Your task to perform on an android device: Open calendar and show me the third week of next month Image 0: 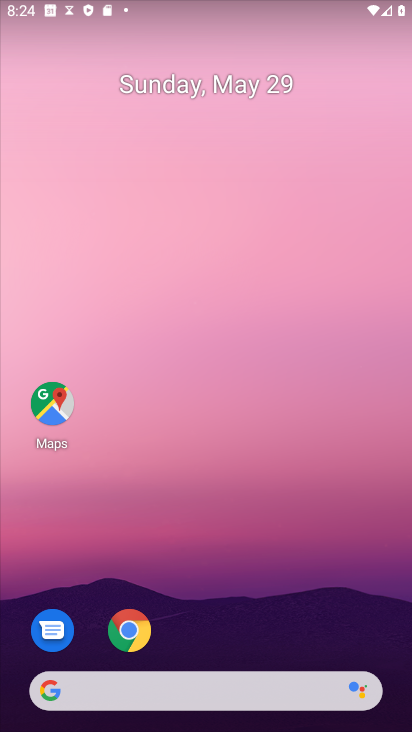
Step 0: click (180, 87)
Your task to perform on an android device: Open calendar and show me the third week of next month Image 1: 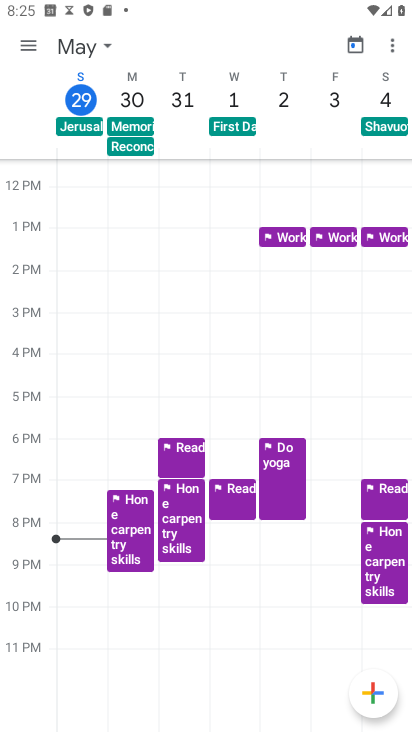
Step 1: click (31, 47)
Your task to perform on an android device: Open calendar and show me the third week of next month Image 2: 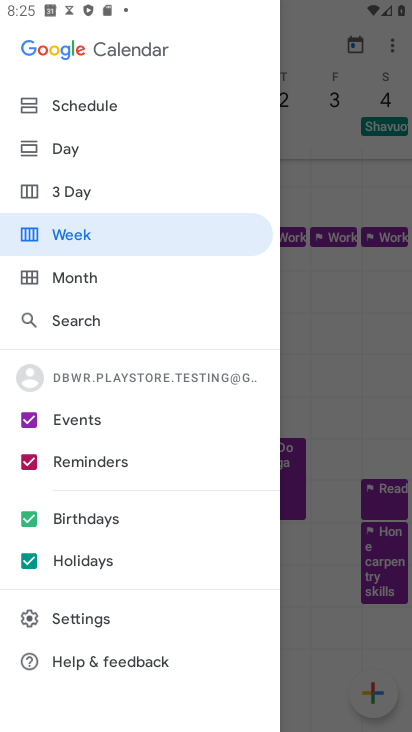
Step 2: click (121, 231)
Your task to perform on an android device: Open calendar and show me the third week of next month Image 3: 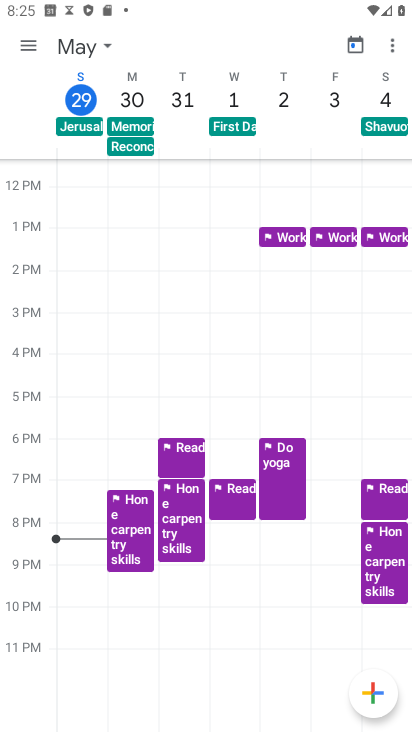
Step 3: click (102, 53)
Your task to perform on an android device: Open calendar and show me the third week of next month Image 4: 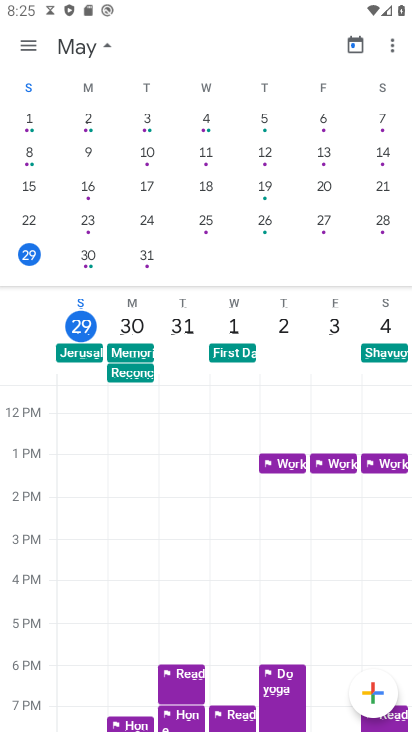
Step 4: drag from (292, 244) to (36, 248)
Your task to perform on an android device: Open calendar and show me the third week of next month Image 5: 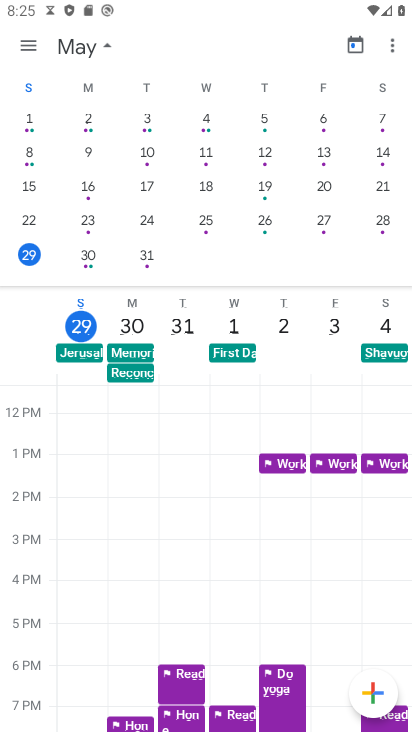
Step 5: drag from (235, 273) to (5, 241)
Your task to perform on an android device: Open calendar and show me the third week of next month Image 6: 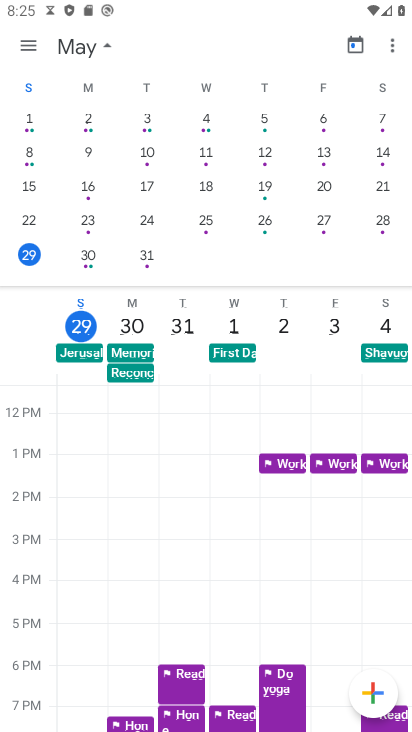
Step 6: drag from (308, 252) to (27, 237)
Your task to perform on an android device: Open calendar and show me the third week of next month Image 7: 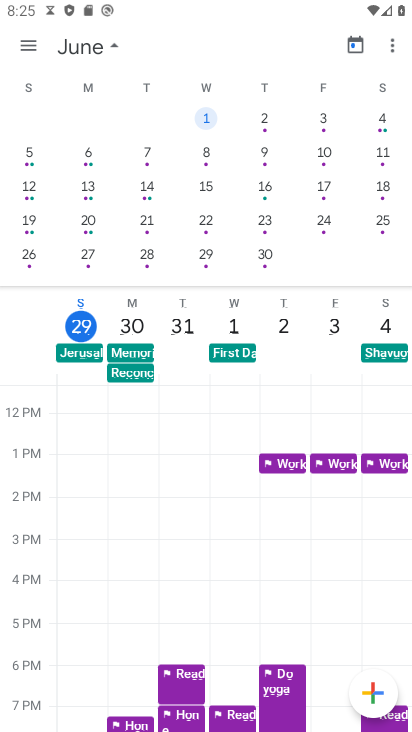
Step 7: click (162, 191)
Your task to perform on an android device: Open calendar and show me the third week of next month Image 8: 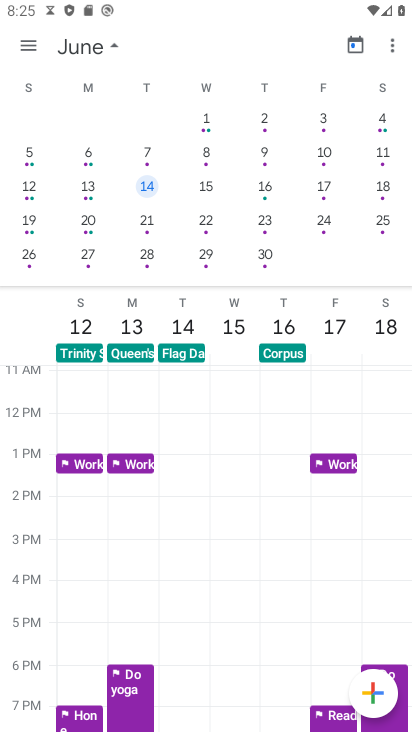
Step 8: task complete